Your task to perform on an android device: see sites visited before in the chrome app Image 0: 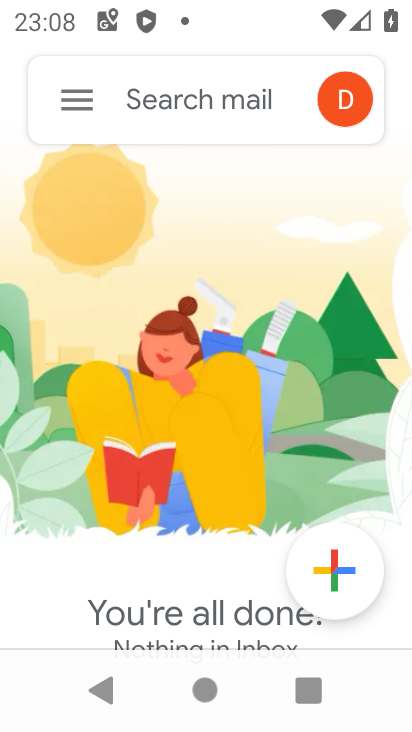
Step 0: press home button
Your task to perform on an android device: see sites visited before in the chrome app Image 1: 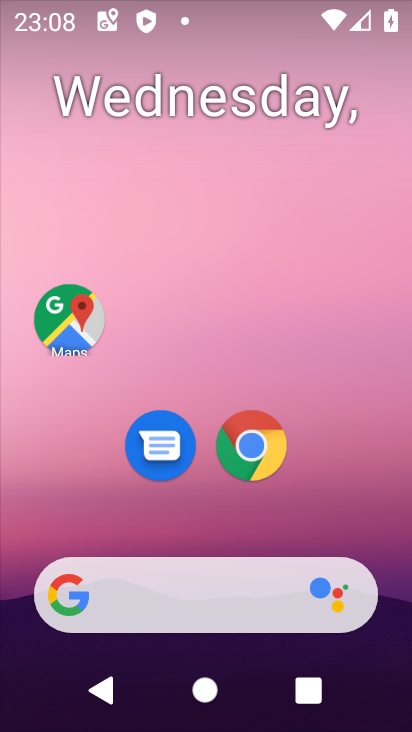
Step 1: click (263, 437)
Your task to perform on an android device: see sites visited before in the chrome app Image 2: 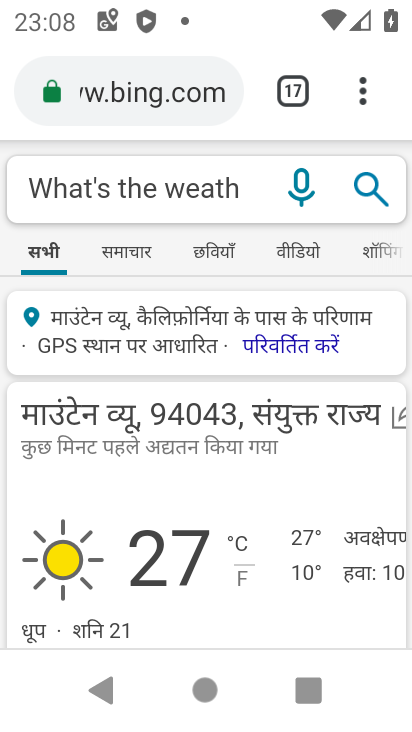
Step 2: click (353, 79)
Your task to perform on an android device: see sites visited before in the chrome app Image 3: 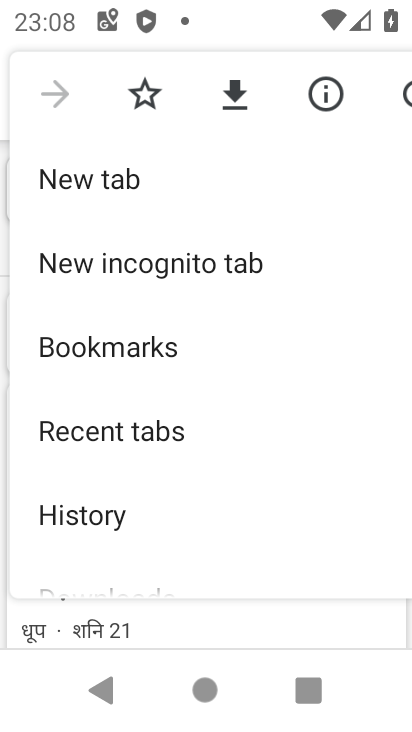
Step 3: drag from (193, 526) to (222, 294)
Your task to perform on an android device: see sites visited before in the chrome app Image 4: 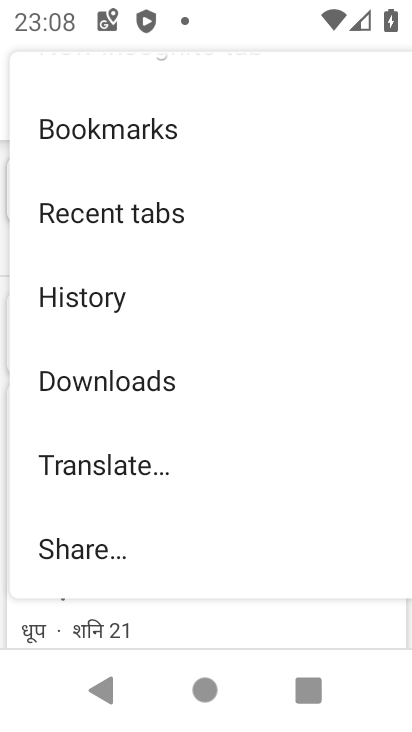
Step 4: click (101, 286)
Your task to perform on an android device: see sites visited before in the chrome app Image 5: 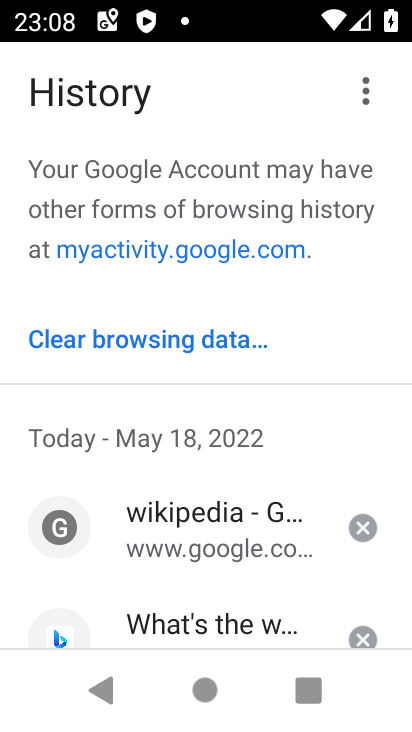
Step 5: task complete